Your task to perform on an android device: delete a single message in the gmail app Image 0: 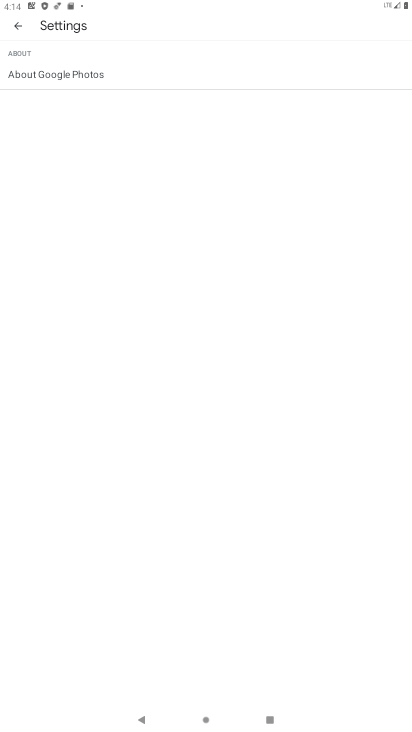
Step 0: press home button
Your task to perform on an android device: delete a single message in the gmail app Image 1: 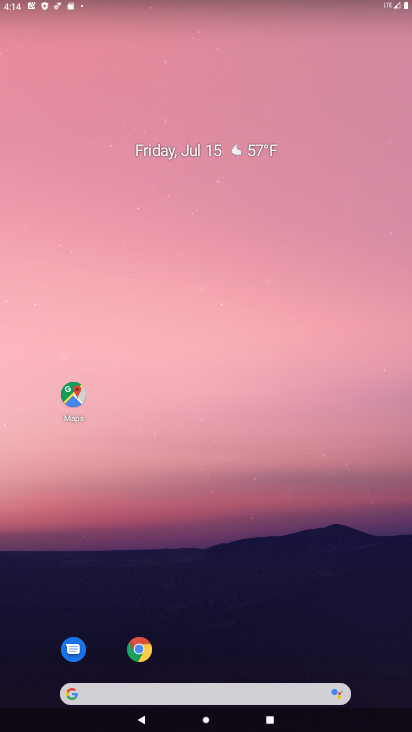
Step 1: drag from (221, 725) to (215, 64)
Your task to perform on an android device: delete a single message in the gmail app Image 2: 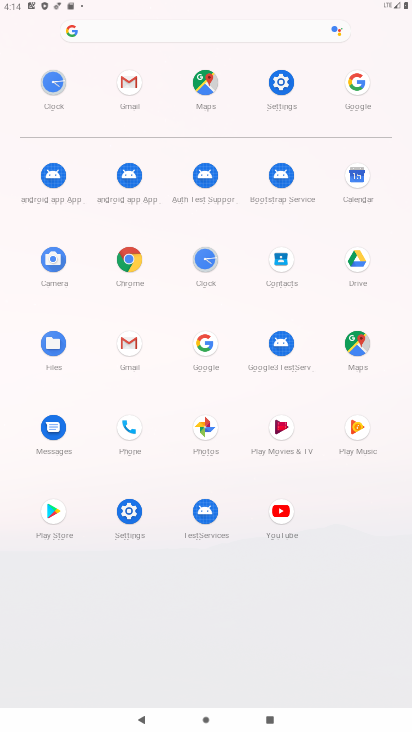
Step 2: click (123, 341)
Your task to perform on an android device: delete a single message in the gmail app Image 3: 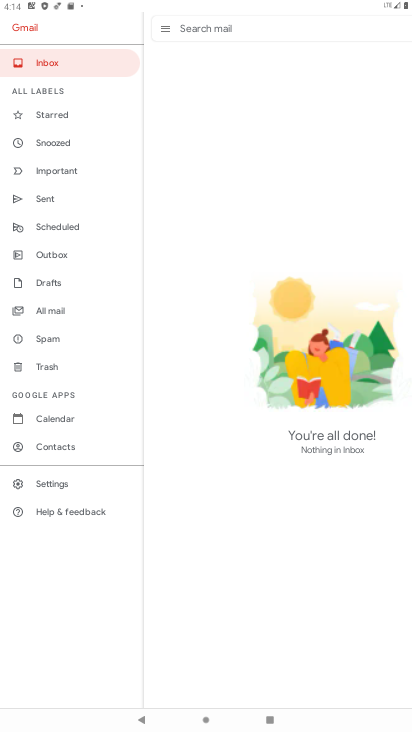
Step 3: click (43, 58)
Your task to perform on an android device: delete a single message in the gmail app Image 4: 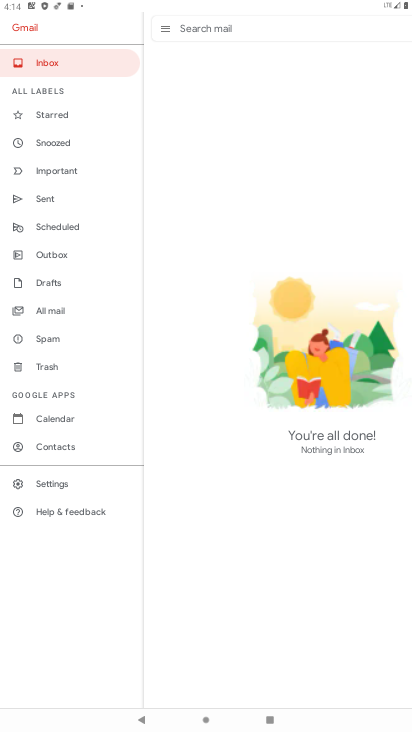
Step 4: task complete